Your task to perform on an android device: Open accessibility settings Image 0: 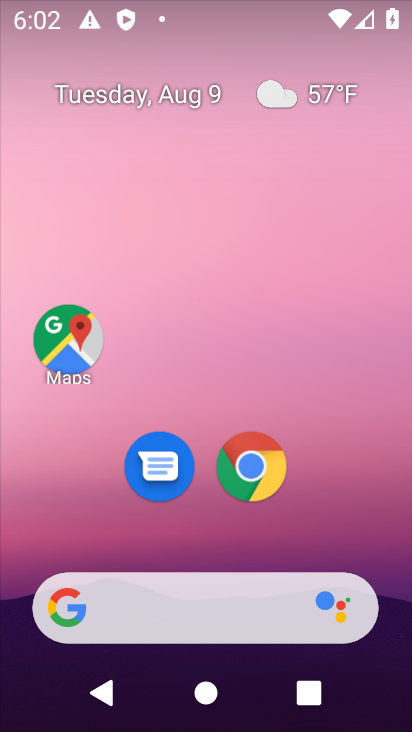
Step 0: drag from (203, 430) to (220, 71)
Your task to perform on an android device: Open accessibility settings Image 1: 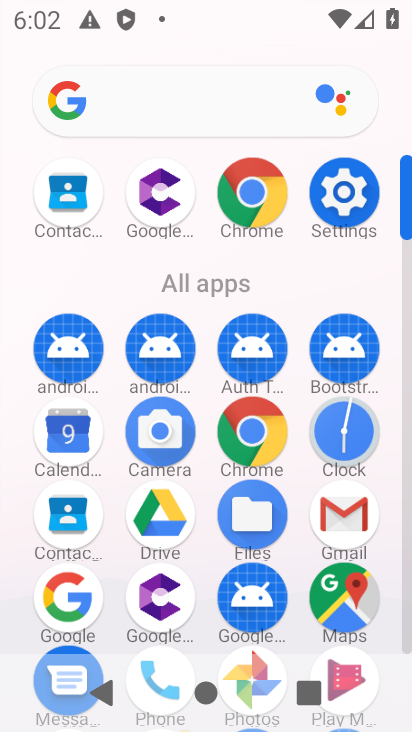
Step 1: click (338, 194)
Your task to perform on an android device: Open accessibility settings Image 2: 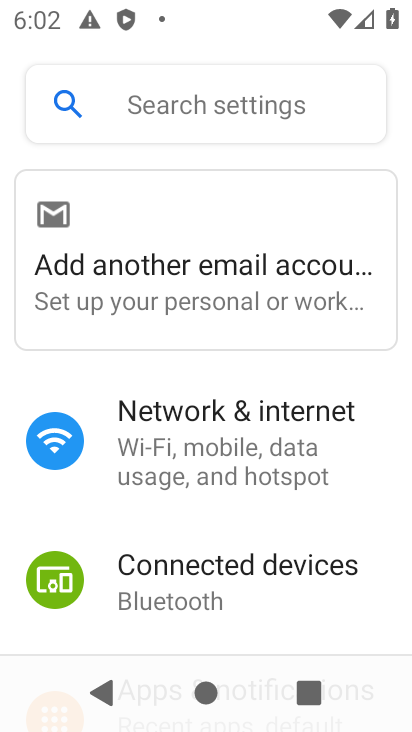
Step 2: drag from (186, 503) to (192, 159)
Your task to perform on an android device: Open accessibility settings Image 3: 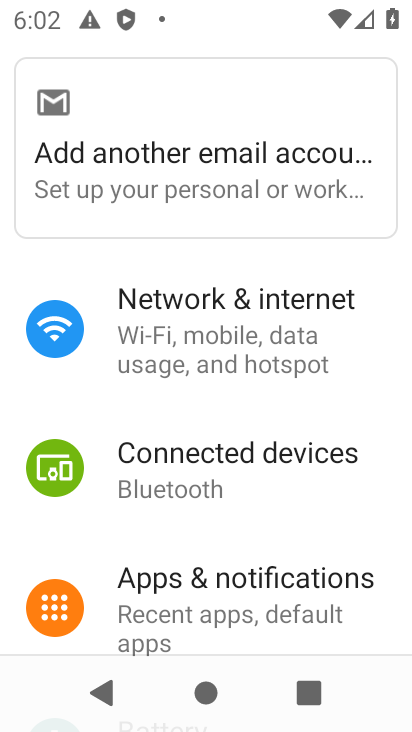
Step 3: drag from (213, 495) to (224, 132)
Your task to perform on an android device: Open accessibility settings Image 4: 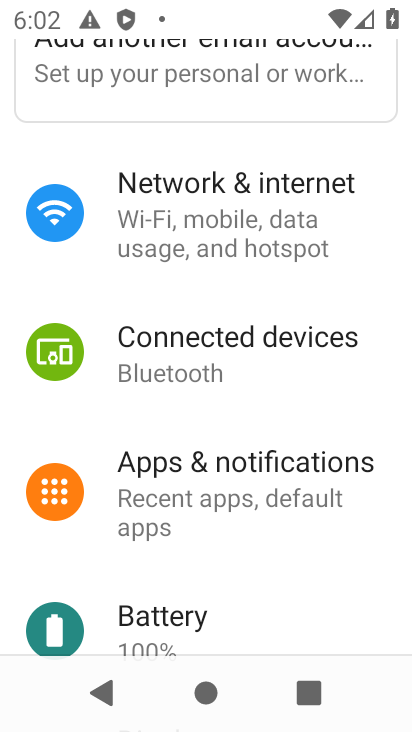
Step 4: drag from (218, 483) to (196, 169)
Your task to perform on an android device: Open accessibility settings Image 5: 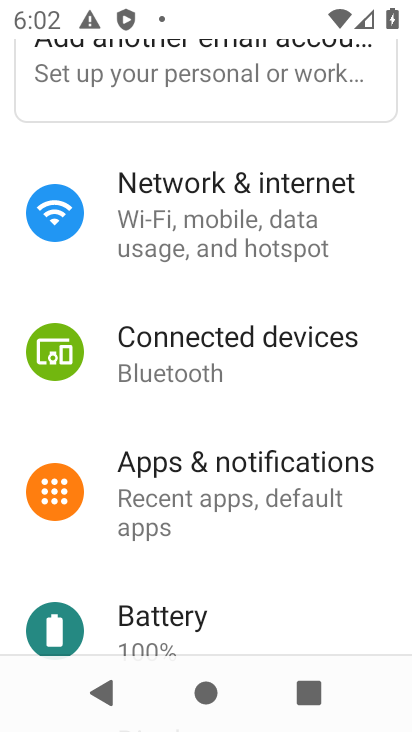
Step 5: drag from (187, 564) to (188, 189)
Your task to perform on an android device: Open accessibility settings Image 6: 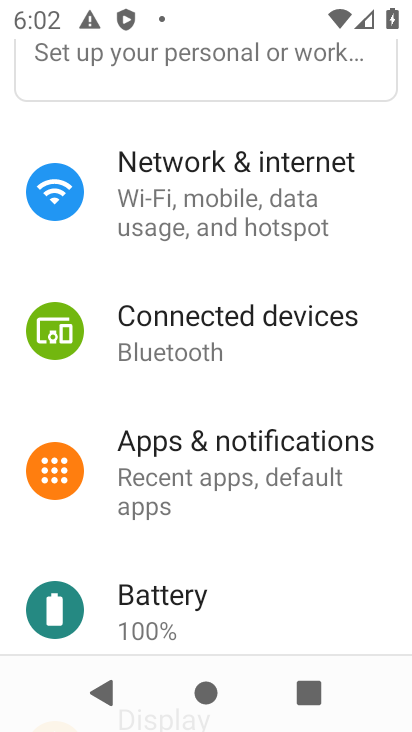
Step 6: drag from (196, 560) to (206, 180)
Your task to perform on an android device: Open accessibility settings Image 7: 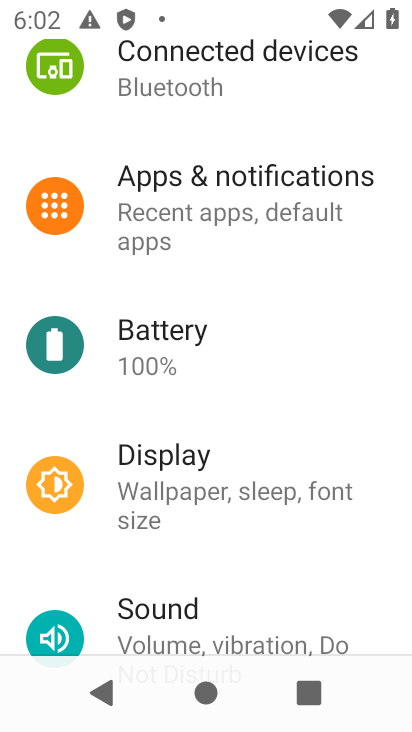
Step 7: drag from (191, 573) to (177, 228)
Your task to perform on an android device: Open accessibility settings Image 8: 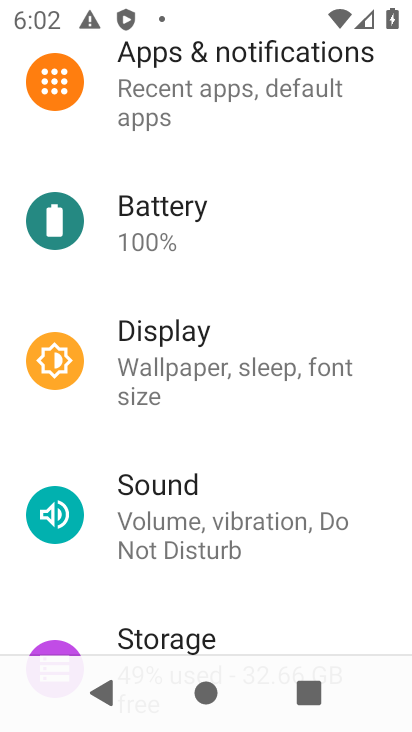
Step 8: drag from (198, 481) to (226, 308)
Your task to perform on an android device: Open accessibility settings Image 9: 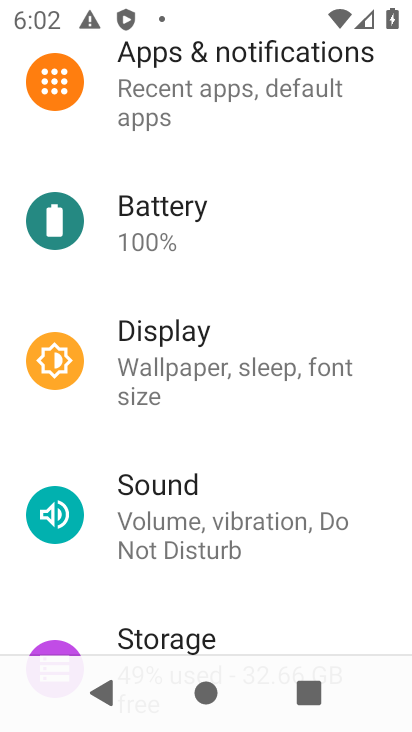
Step 9: drag from (222, 516) to (222, 222)
Your task to perform on an android device: Open accessibility settings Image 10: 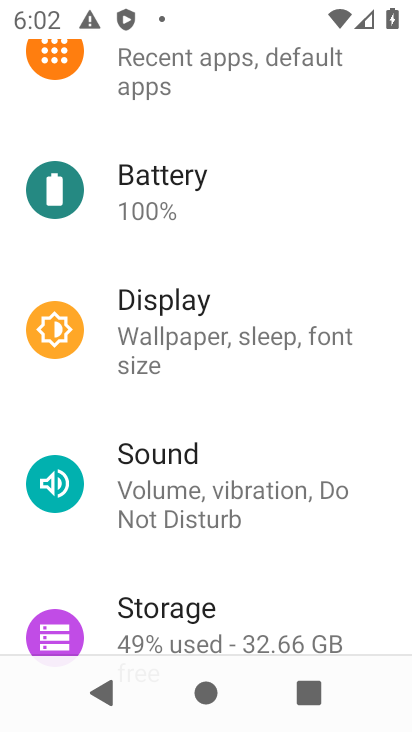
Step 10: drag from (186, 517) to (186, 227)
Your task to perform on an android device: Open accessibility settings Image 11: 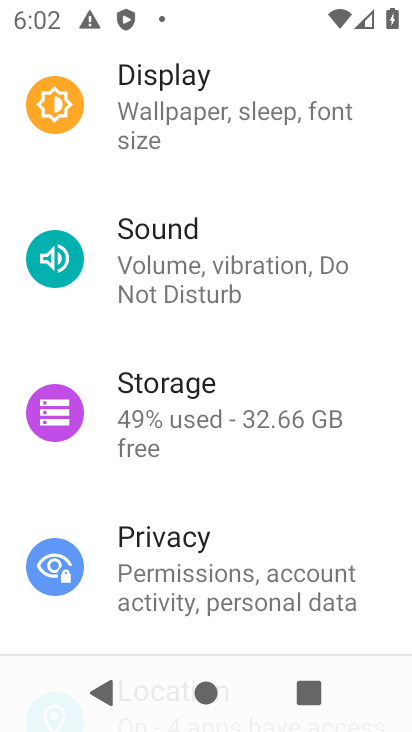
Step 11: drag from (198, 376) to (202, 233)
Your task to perform on an android device: Open accessibility settings Image 12: 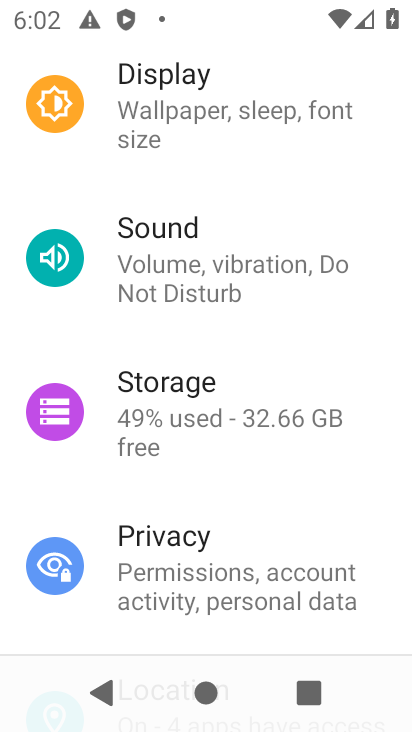
Step 12: drag from (192, 593) to (188, 260)
Your task to perform on an android device: Open accessibility settings Image 13: 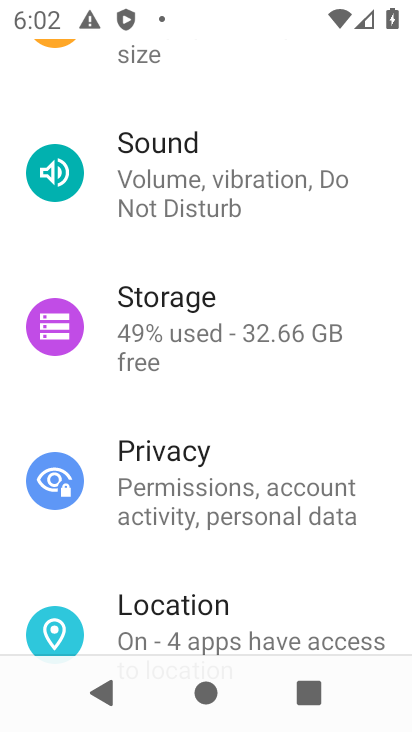
Step 13: drag from (221, 499) to (195, 265)
Your task to perform on an android device: Open accessibility settings Image 14: 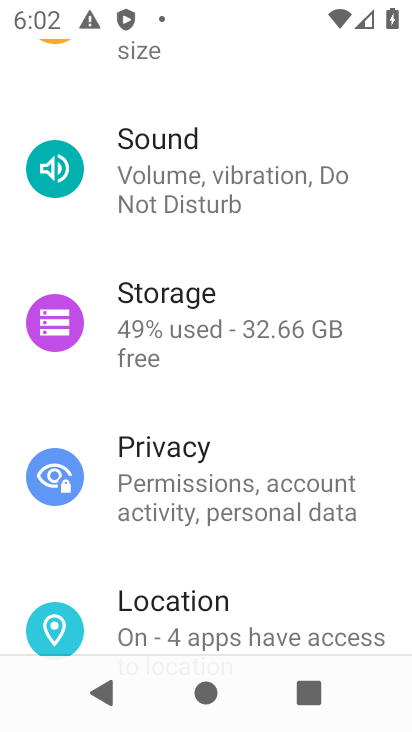
Step 14: drag from (193, 546) to (205, 320)
Your task to perform on an android device: Open accessibility settings Image 15: 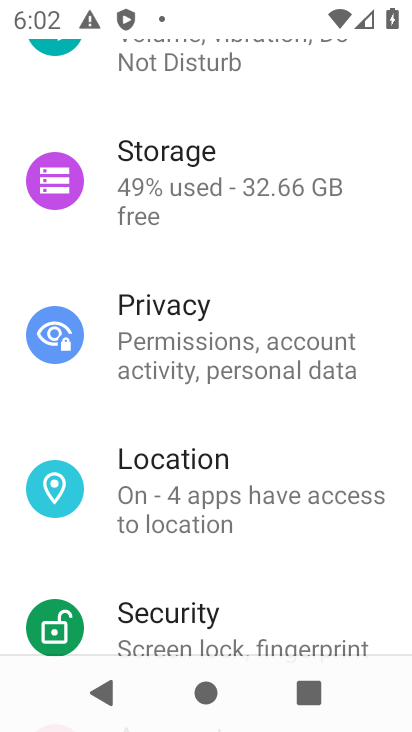
Step 15: drag from (247, 531) to (238, 252)
Your task to perform on an android device: Open accessibility settings Image 16: 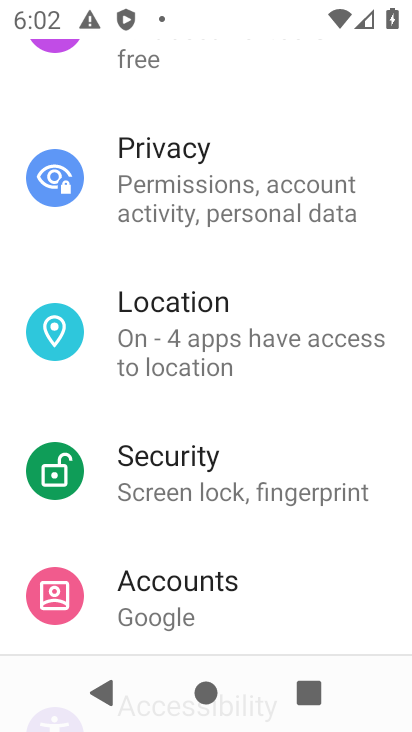
Step 16: drag from (270, 341) to (270, 260)
Your task to perform on an android device: Open accessibility settings Image 17: 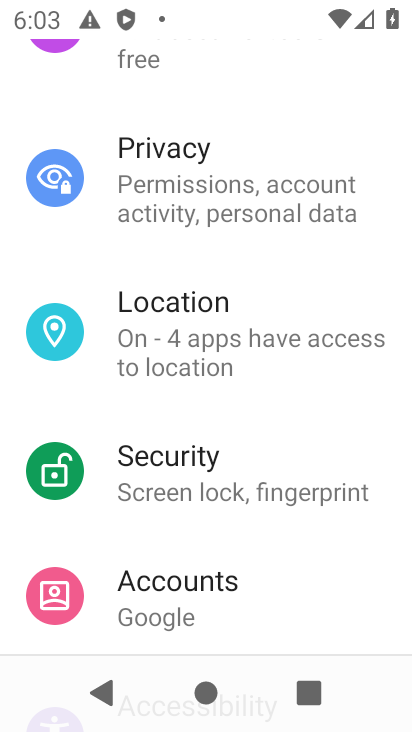
Step 17: drag from (255, 435) to (255, 235)
Your task to perform on an android device: Open accessibility settings Image 18: 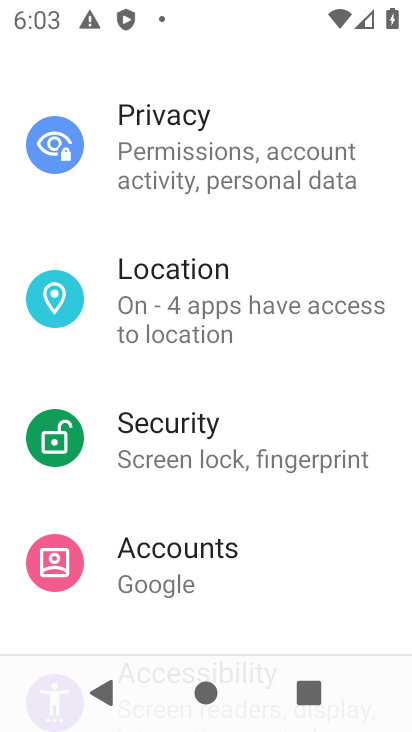
Step 18: drag from (253, 447) to (235, 106)
Your task to perform on an android device: Open accessibility settings Image 19: 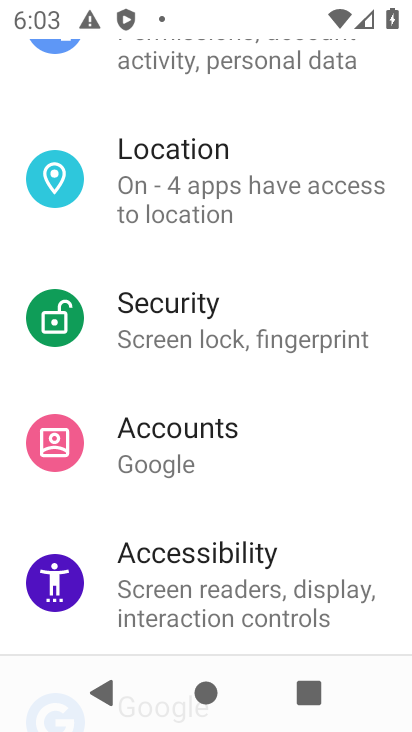
Step 19: click (205, 573)
Your task to perform on an android device: Open accessibility settings Image 20: 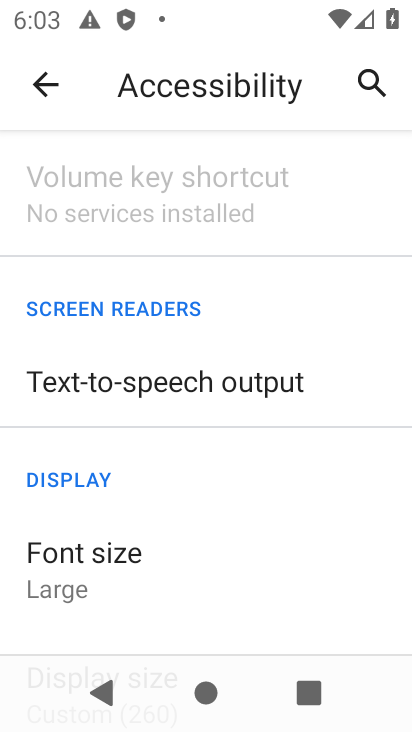
Step 20: task complete